Your task to perform on an android device: open device folders in google photos Image 0: 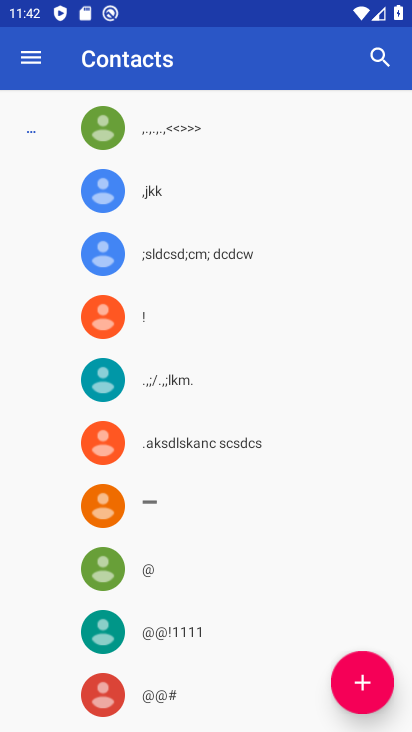
Step 0: press back button
Your task to perform on an android device: open device folders in google photos Image 1: 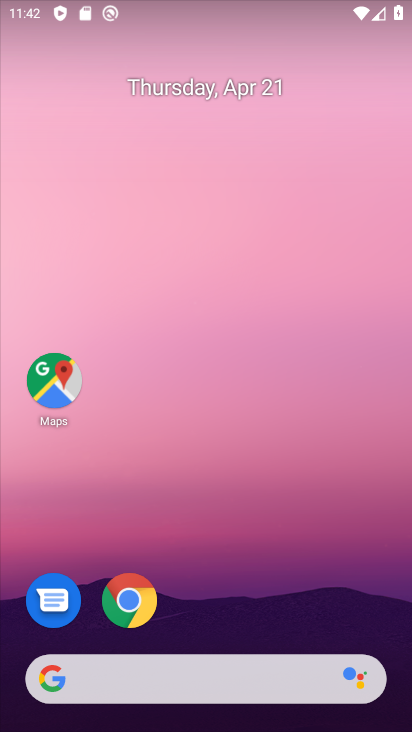
Step 1: drag from (227, 650) to (319, 103)
Your task to perform on an android device: open device folders in google photos Image 2: 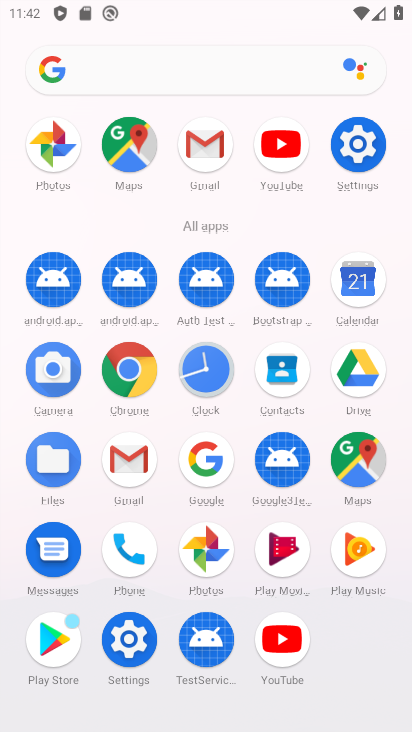
Step 2: click (214, 554)
Your task to perform on an android device: open device folders in google photos Image 3: 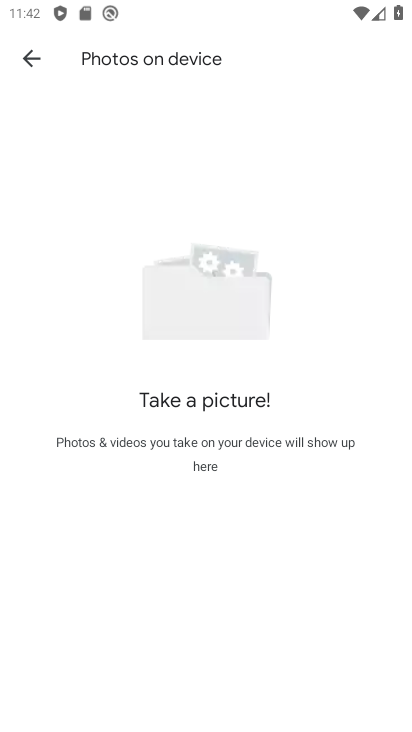
Step 3: press back button
Your task to perform on an android device: open device folders in google photos Image 4: 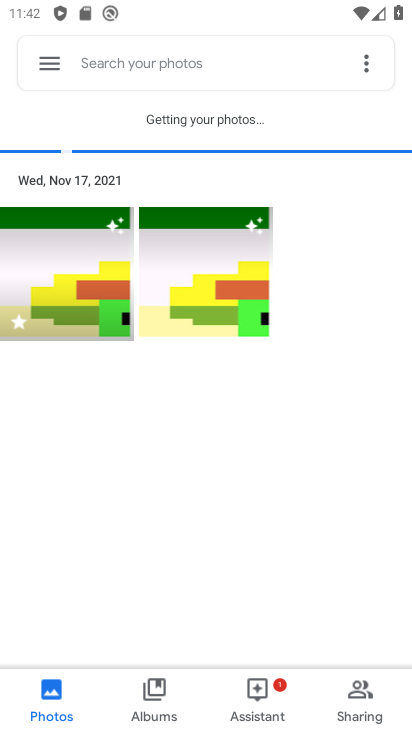
Step 4: click (54, 53)
Your task to perform on an android device: open device folders in google photos Image 5: 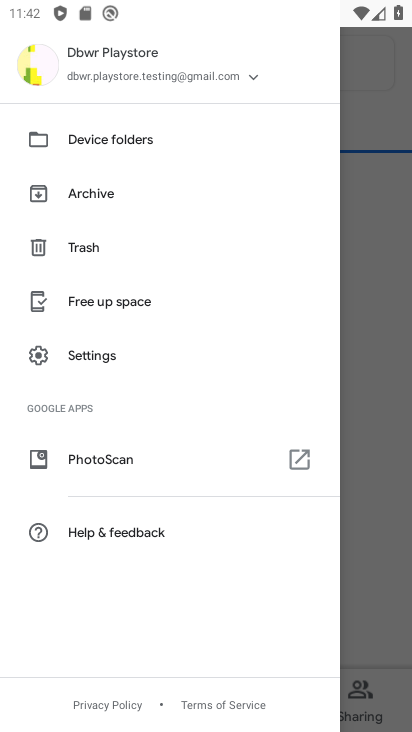
Step 5: click (179, 149)
Your task to perform on an android device: open device folders in google photos Image 6: 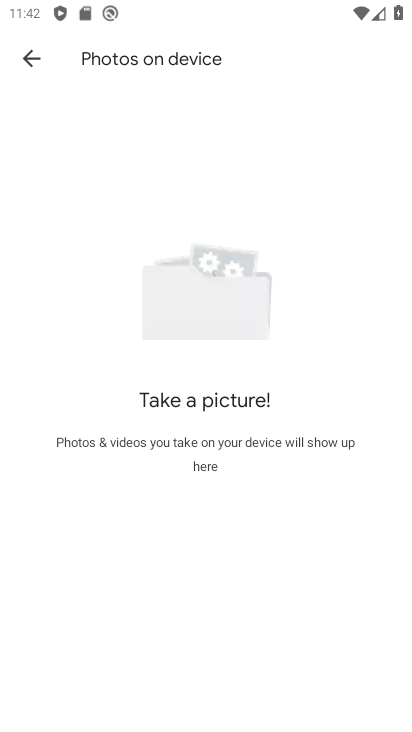
Step 6: task complete